Your task to perform on an android device: turn on priority inbox in the gmail app Image 0: 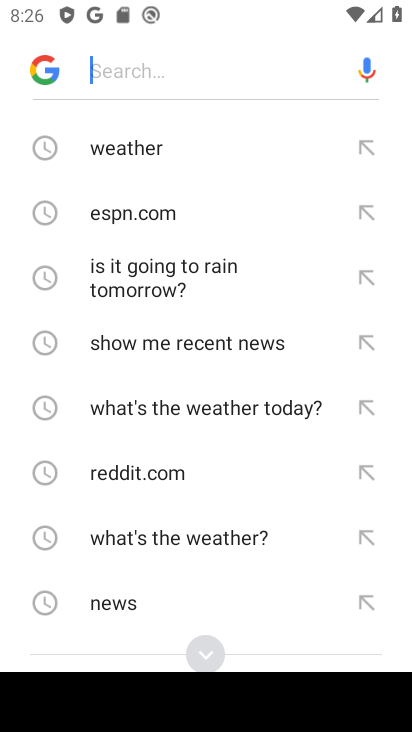
Step 0: press home button
Your task to perform on an android device: turn on priority inbox in the gmail app Image 1: 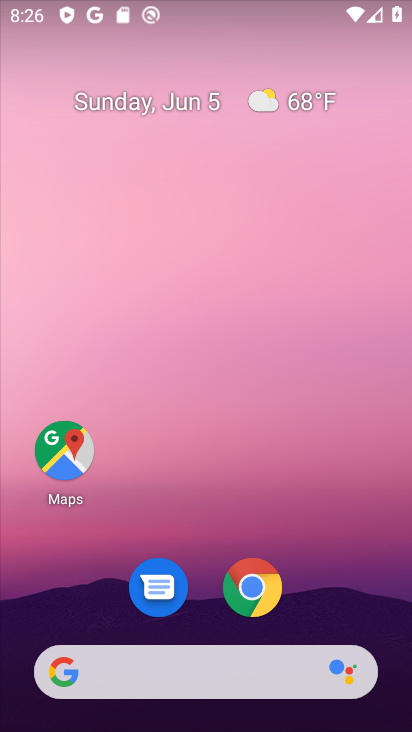
Step 1: drag from (322, 603) to (294, 182)
Your task to perform on an android device: turn on priority inbox in the gmail app Image 2: 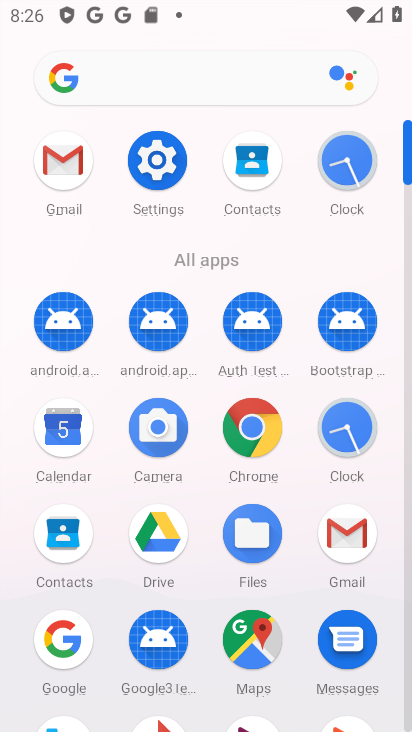
Step 2: click (360, 542)
Your task to perform on an android device: turn on priority inbox in the gmail app Image 3: 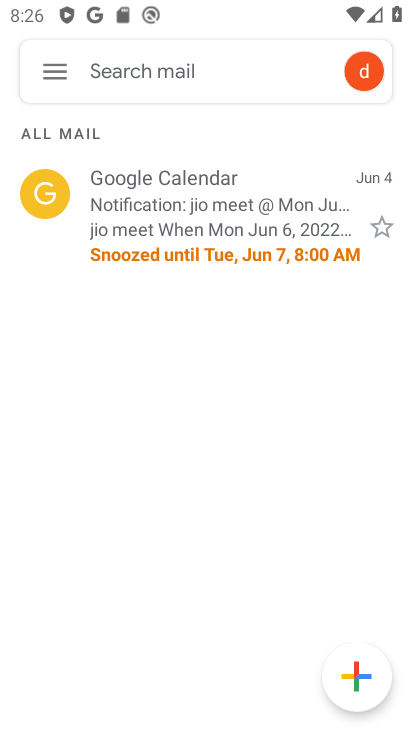
Step 3: click (59, 71)
Your task to perform on an android device: turn on priority inbox in the gmail app Image 4: 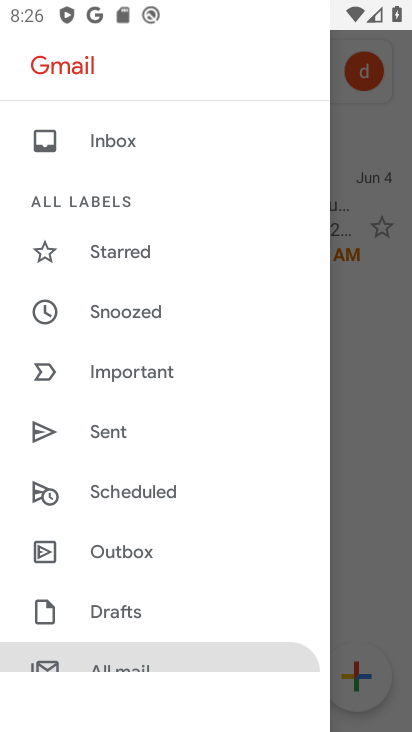
Step 4: drag from (170, 634) to (181, 174)
Your task to perform on an android device: turn on priority inbox in the gmail app Image 5: 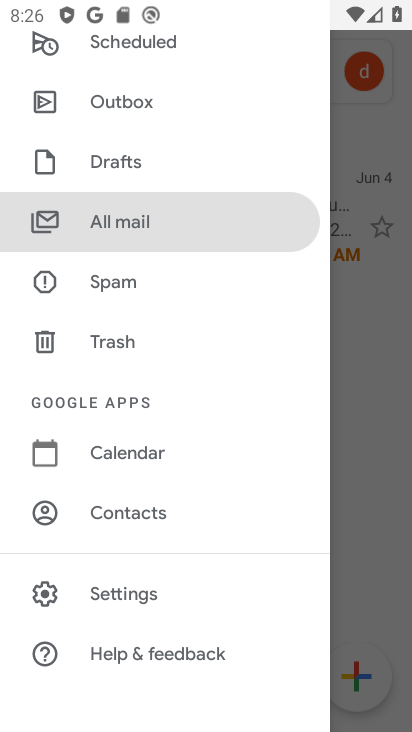
Step 5: click (151, 591)
Your task to perform on an android device: turn on priority inbox in the gmail app Image 6: 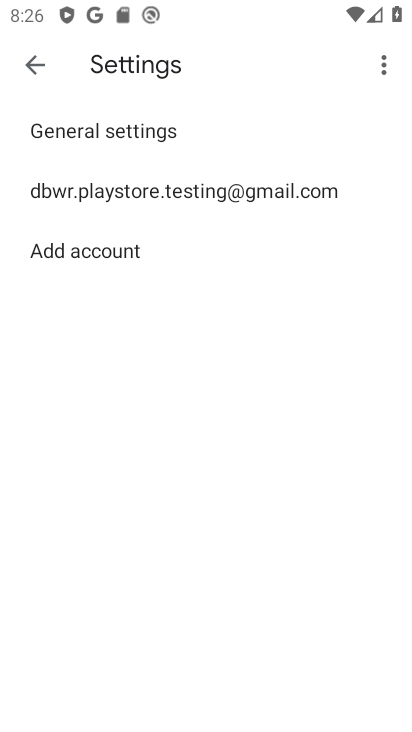
Step 6: click (219, 191)
Your task to perform on an android device: turn on priority inbox in the gmail app Image 7: 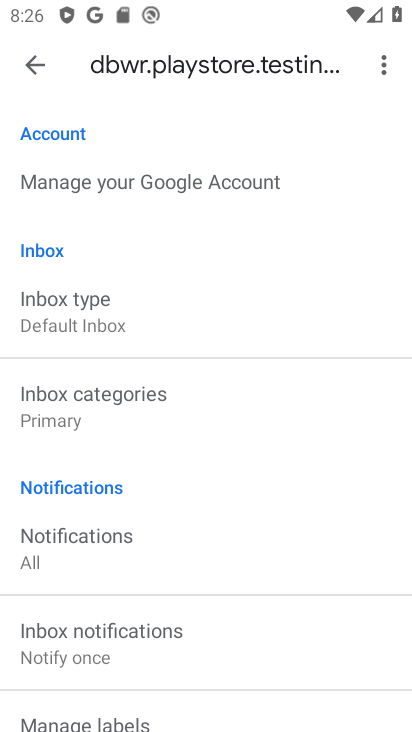
Step 7: drag from (112, 643) to (125, 361)
Your task to perform on an android device: turn on priority inbox in the gmail app Image 8: 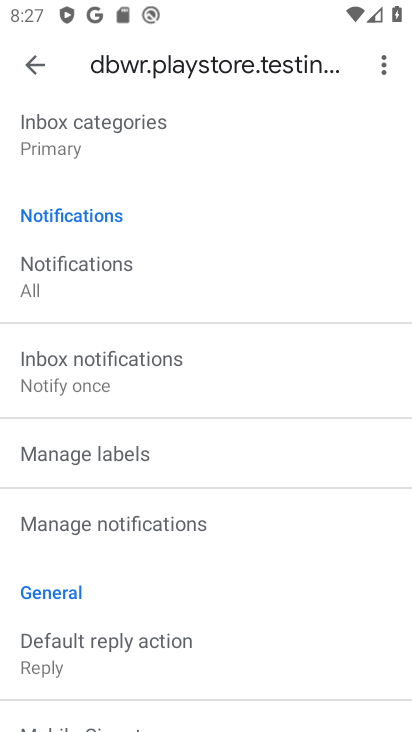
Step 8: drag from (108, 539) to (150, 251)
Your task to perform on an android device: turn on priority inbox in the gmail app Image 9: 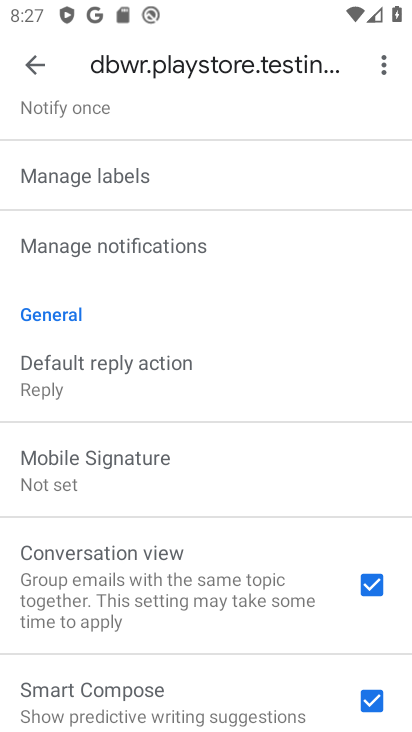
Step 9: drag from (173, 134) to (187, 526)
Your task to perform on an android device: turn on priority inbox in the gmail app Image 10: 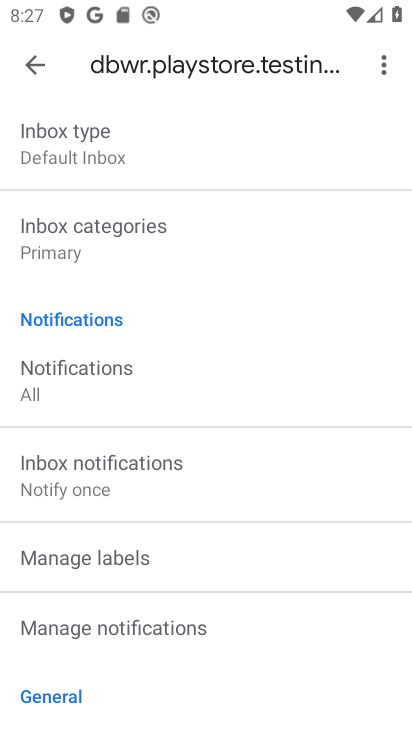
Step 10: drag from (98, 190) to (104, 397)
Your task to perform on an android device: turn on priority inbox in the gmail app Image 11: 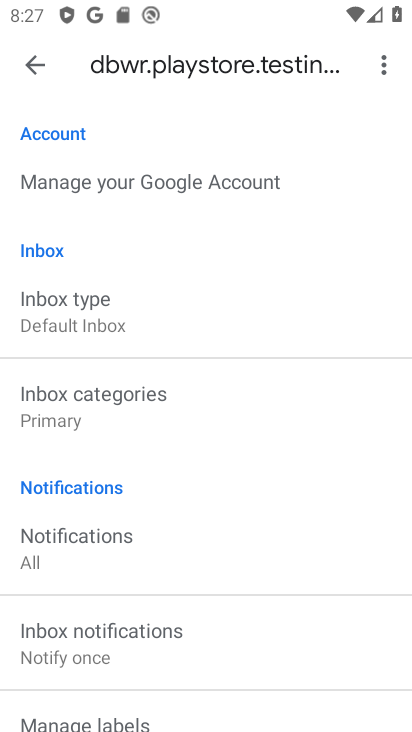
Step 11: drag from (196, 169) to (209, 404)
Your task to perform on an android device: turn on priority inbox in the gmail app Image 12: 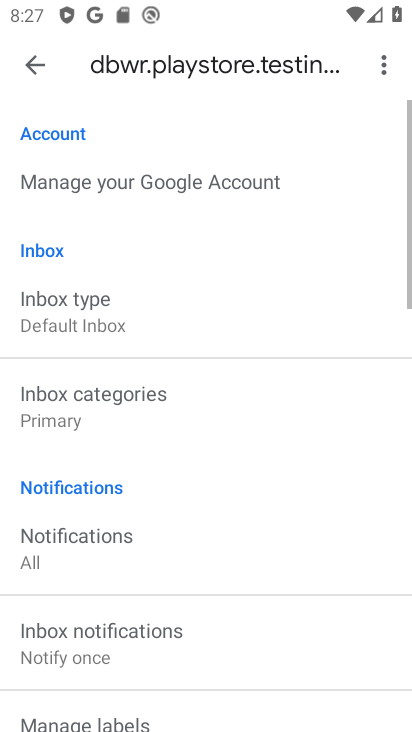
Step 12: drag from (209, 404) to (211, 133)
Your task to perform on an android device: turn on priority inbox in the gmail app Image 13: 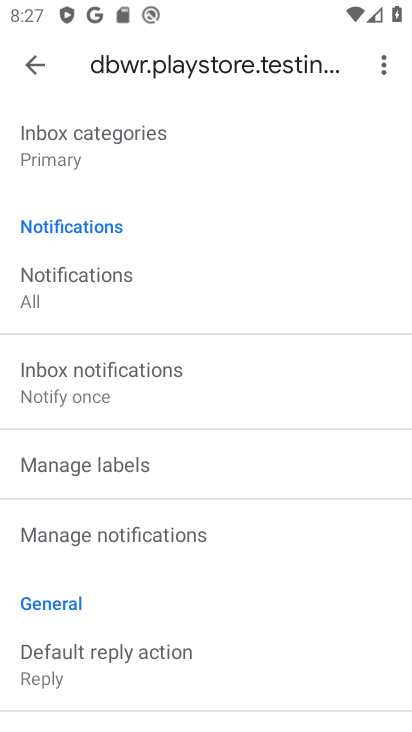
Step 13: drag from (210, 135) to (232, 395)
Your task to perform on an android device: turn on priority inbox in the gmail app Image 14: 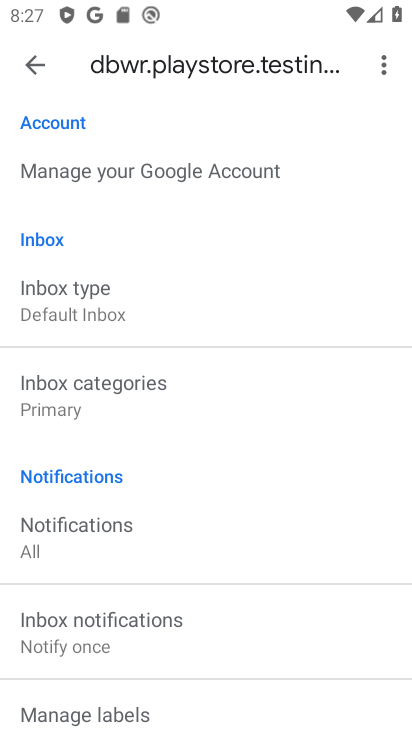
Step 14: click (75, 290)
Your task to perform on an android device: turn on priority inbox in the gmail app Image 15: 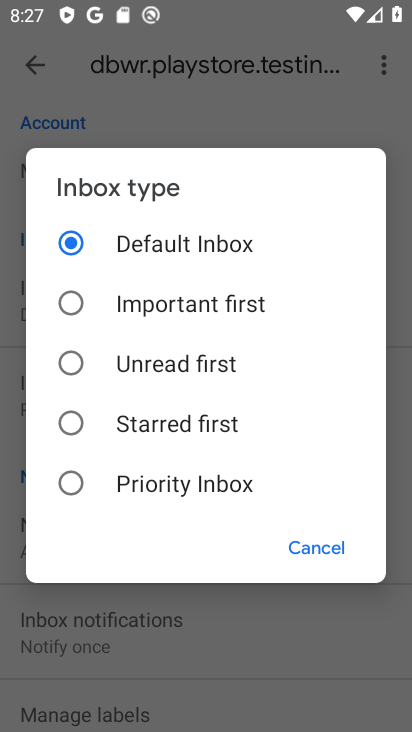
Step 15: click (154, 472)
Your task to perform on an android device: turn on priority inbox in the gmail app Image 16: 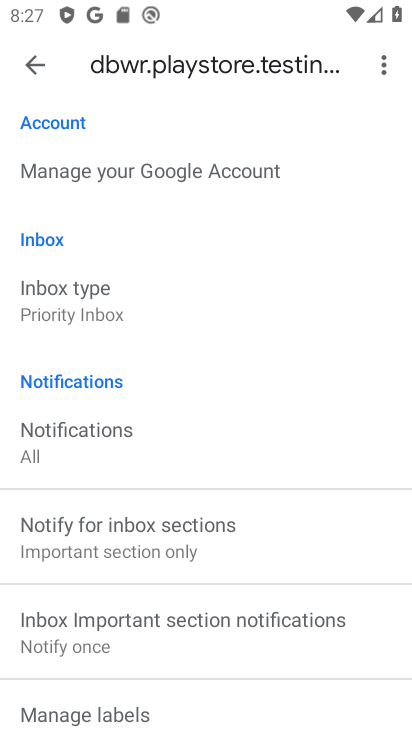
Step 16: task complete